Your task to perform on an android device: Open Google Chrome Image 0: 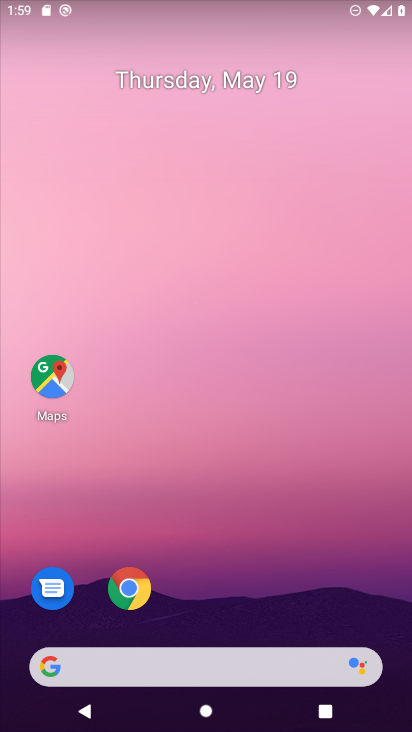
Step 0: click (130, 594)
Your task to perform on an android device: Open Google Chrome Image 1: 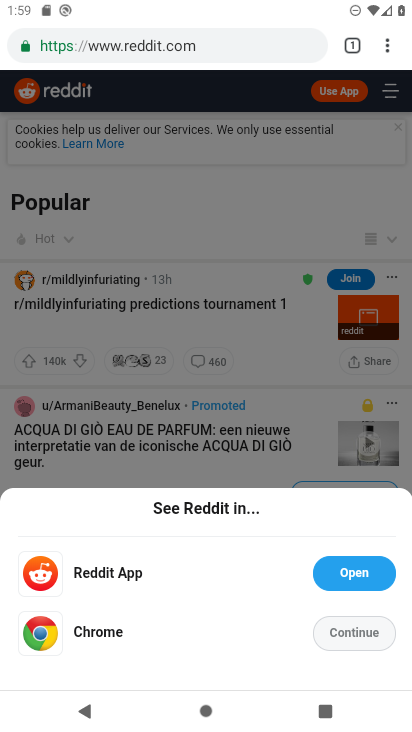
Step 1: task complete